Your task to perform on an android device: Search for lenovo thinkpad on costco.com, select the first entry, and add it to the cart. Image 0: 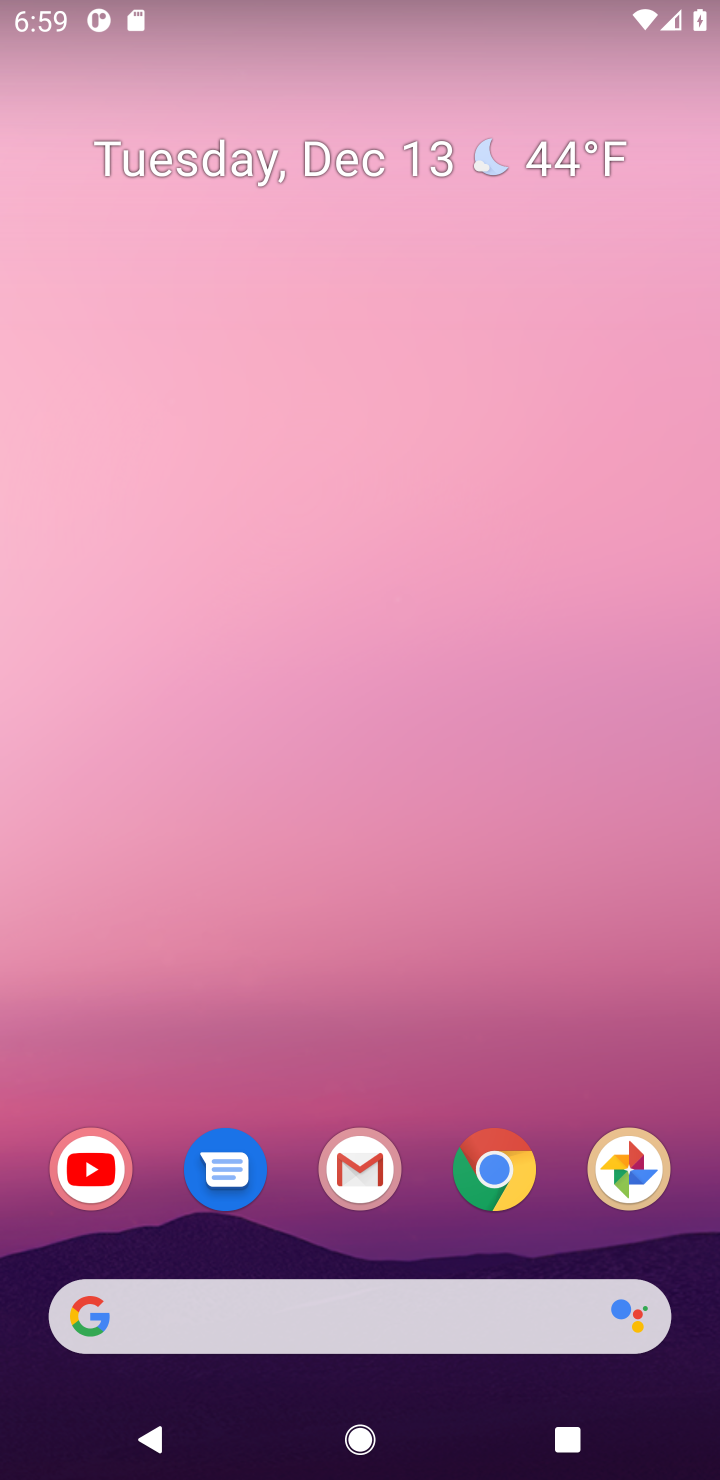
Step 0: click (484, 1196)
Your task to perform on an android device: Search for lenovo thinkpad on costco.com, select the first entry, and add it to the cart. Image 1: 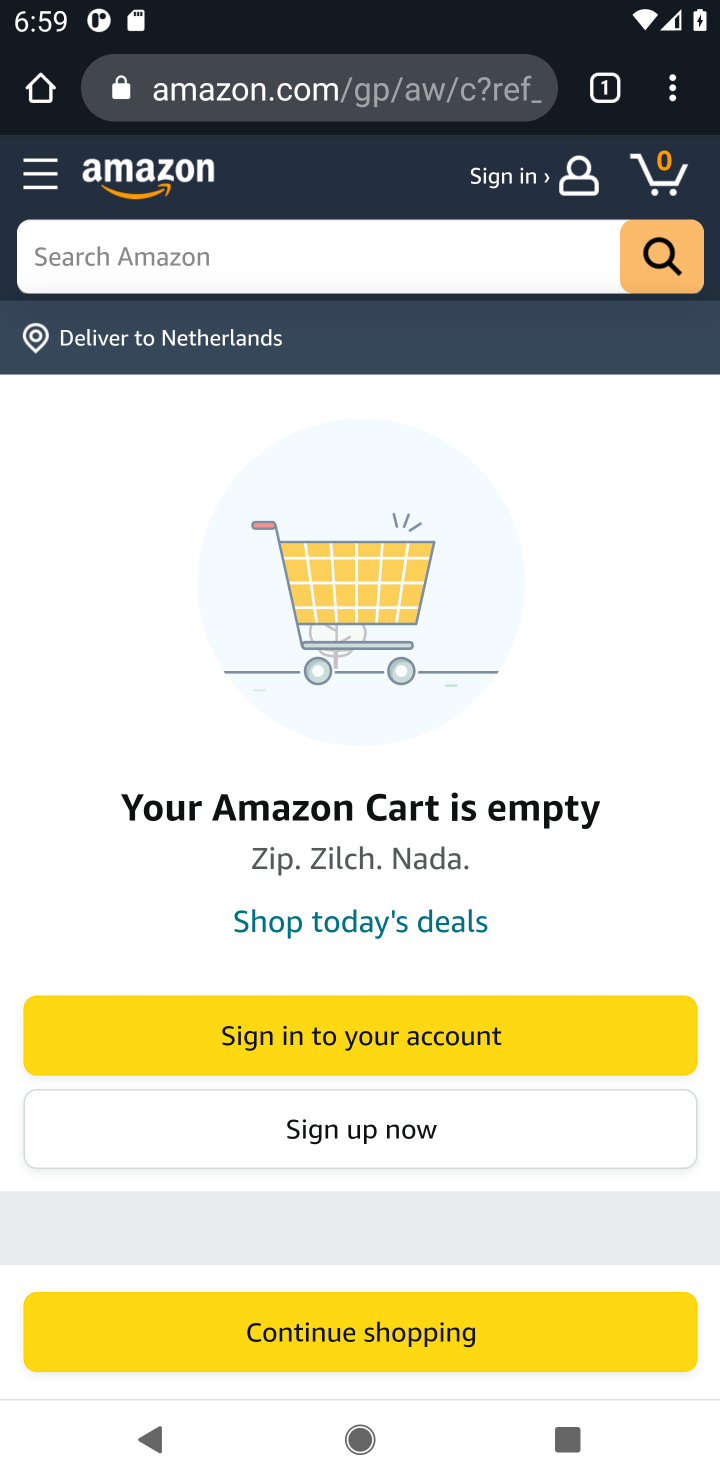
Step 1: click (346, 57)
Your task to perform on an android device: Search for lenovo thinkpad on costco.com, select the first entry, and add it to the cart. Image 2: 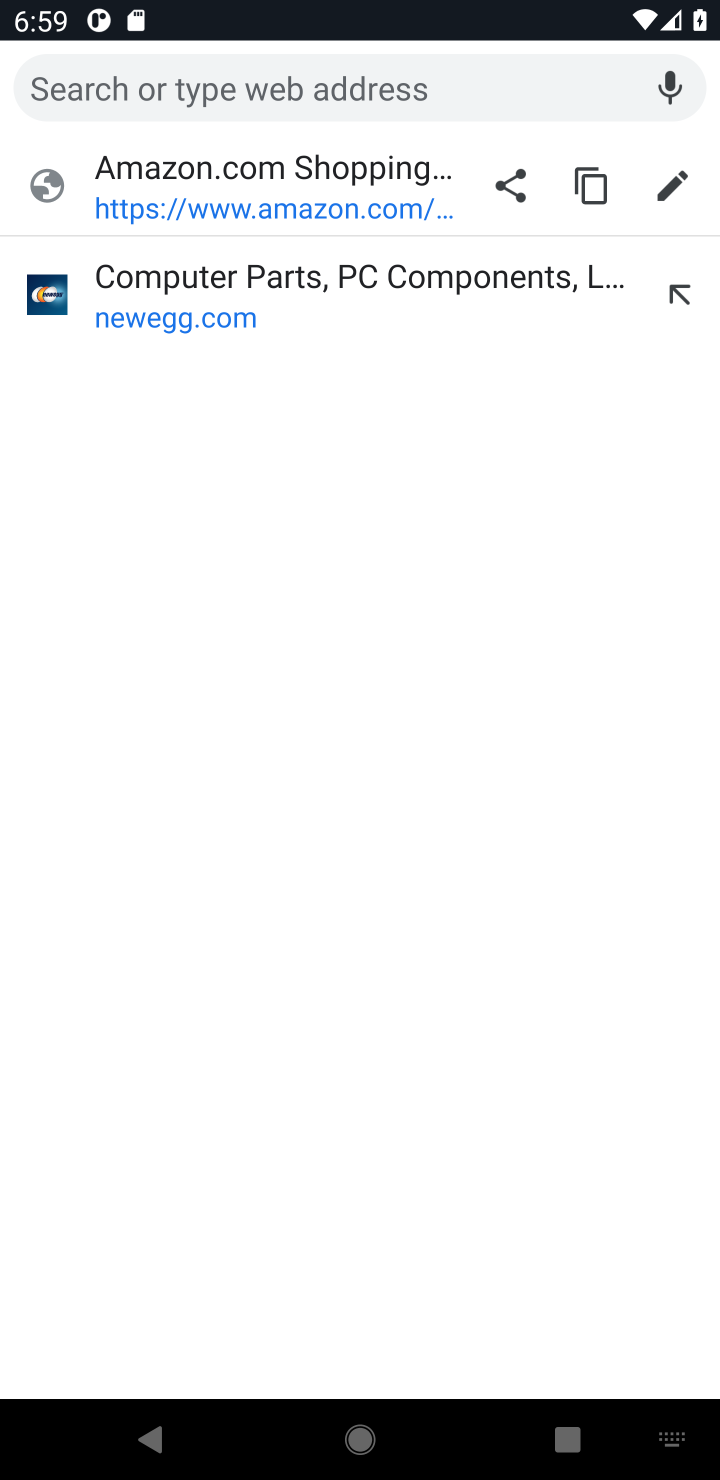
Step 2: type "costco"
Your task to perform on an android device: Search for lenovo thinkpad on costco.com, select the first entry, and add it to the cart. Image 3: 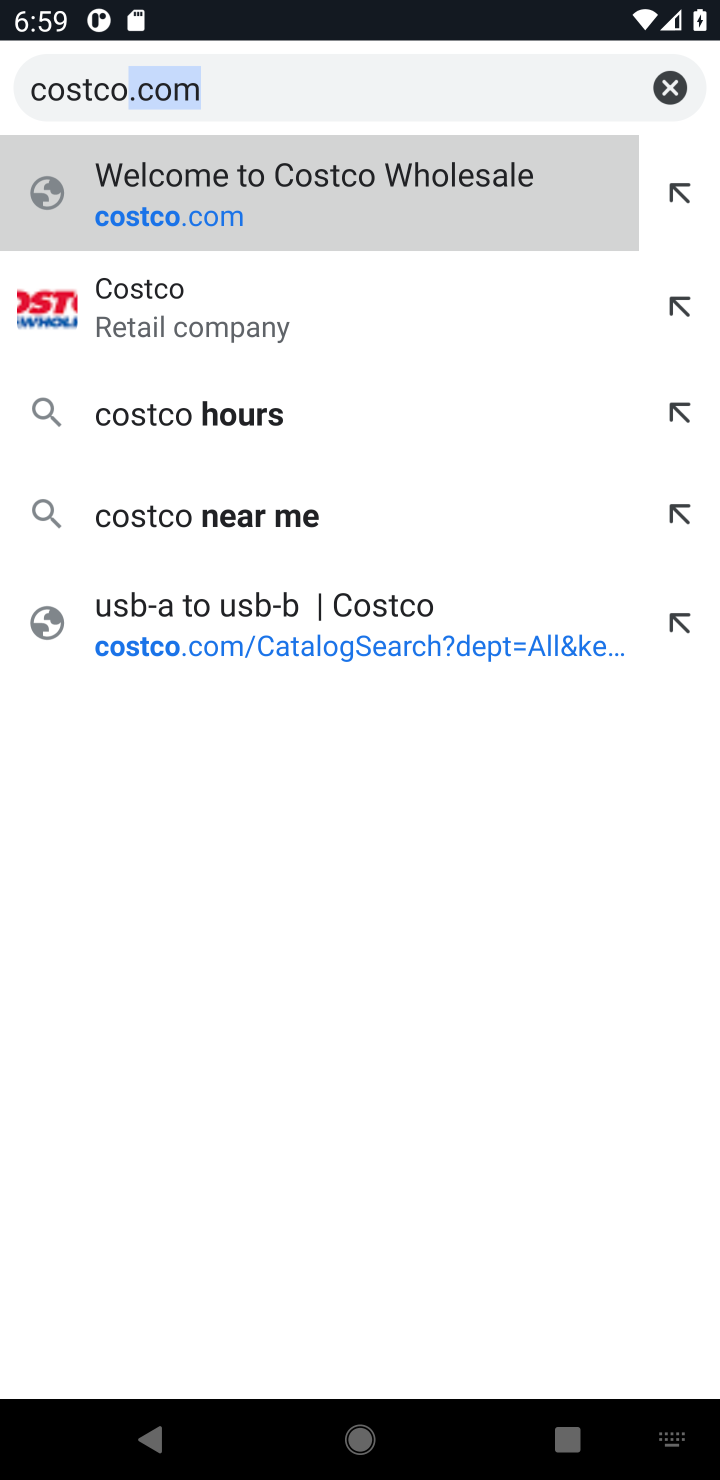
Step 3: click (270, 354)
Your task to perform on an android device: Search for lenovo thinkpad on costco.com, select the first entry, and add it to the cart. Image 4: 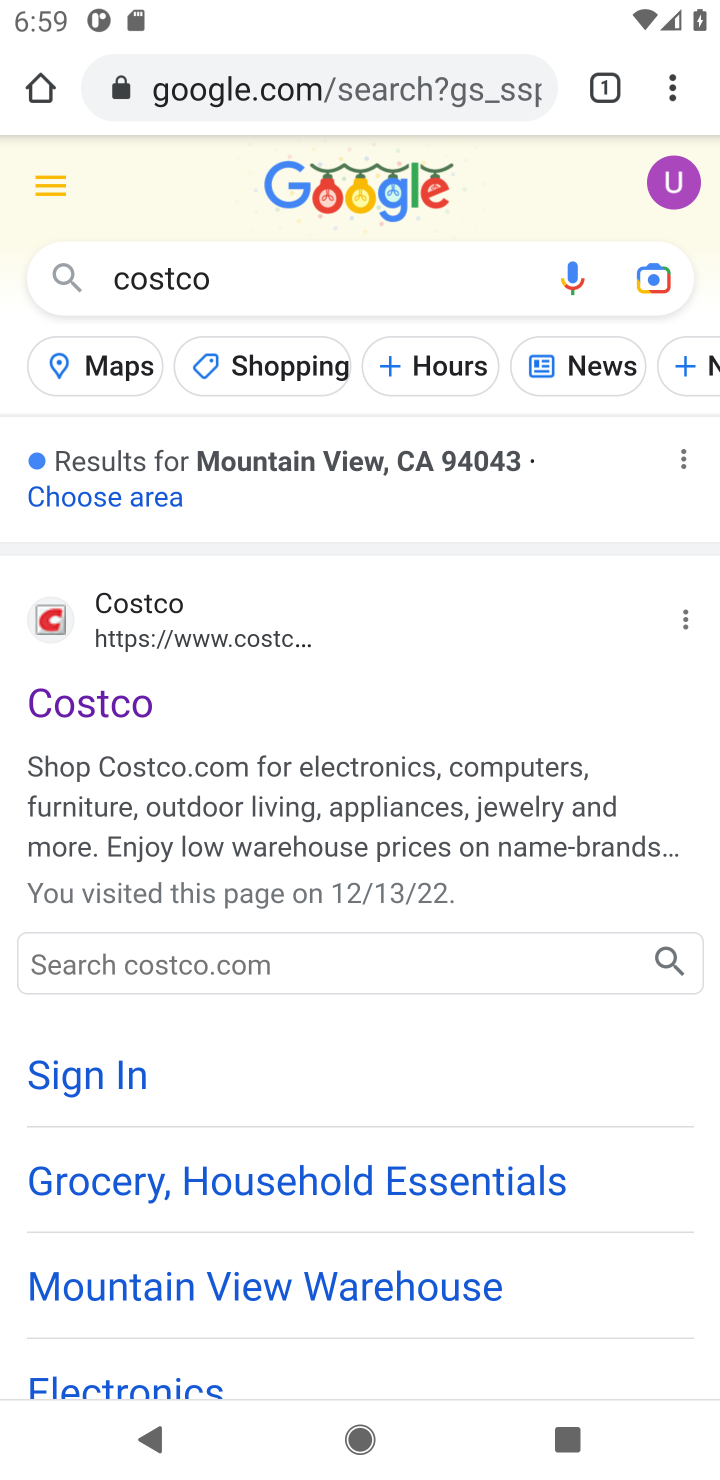
Step 4: click (49, 722)
Your task to perform on an android device: Search for lenovo thinkpad on costco.com, select the first entry, and add it to the cart. Image 5: 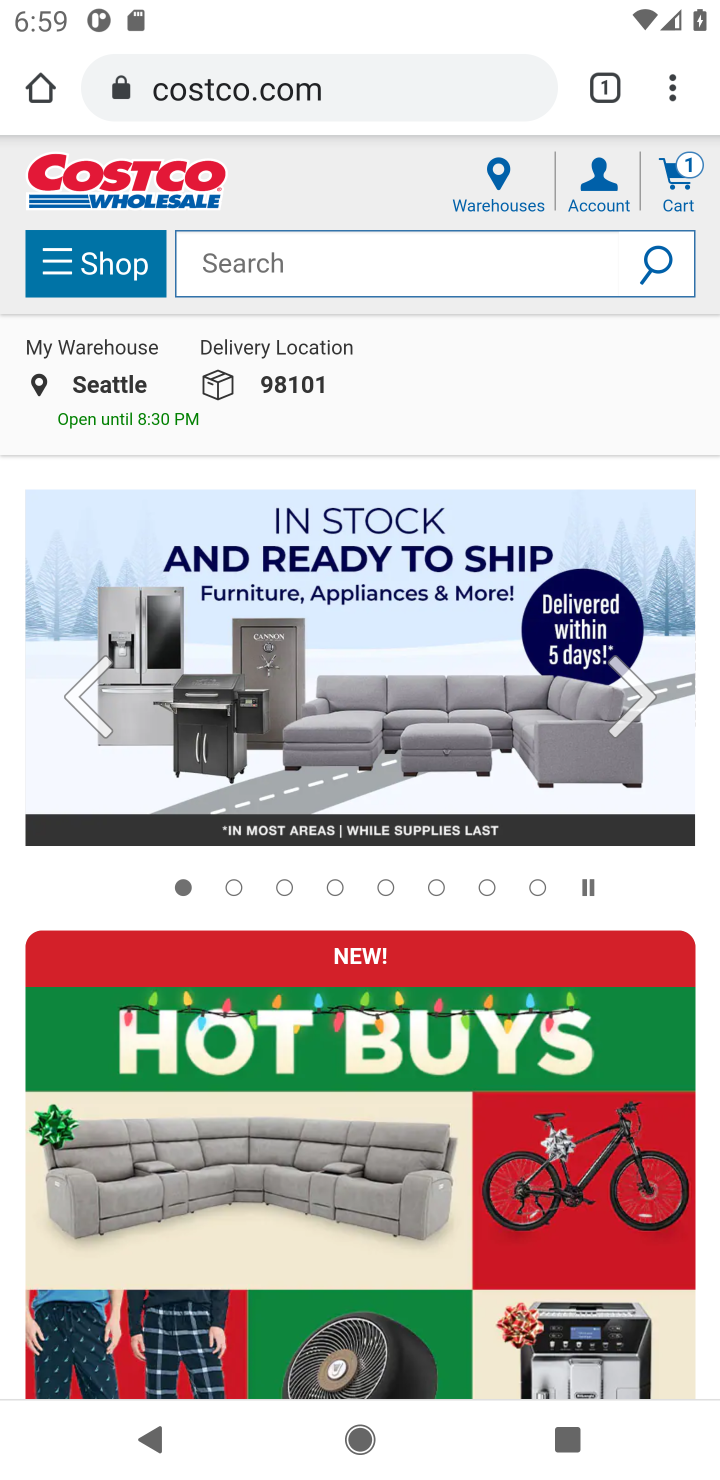
Step 5: click (262, 255)
Your task to perform on an android device: Search for lenovo thinkpad on costco.com, select the first entry, and add it to the cart. Image 6: 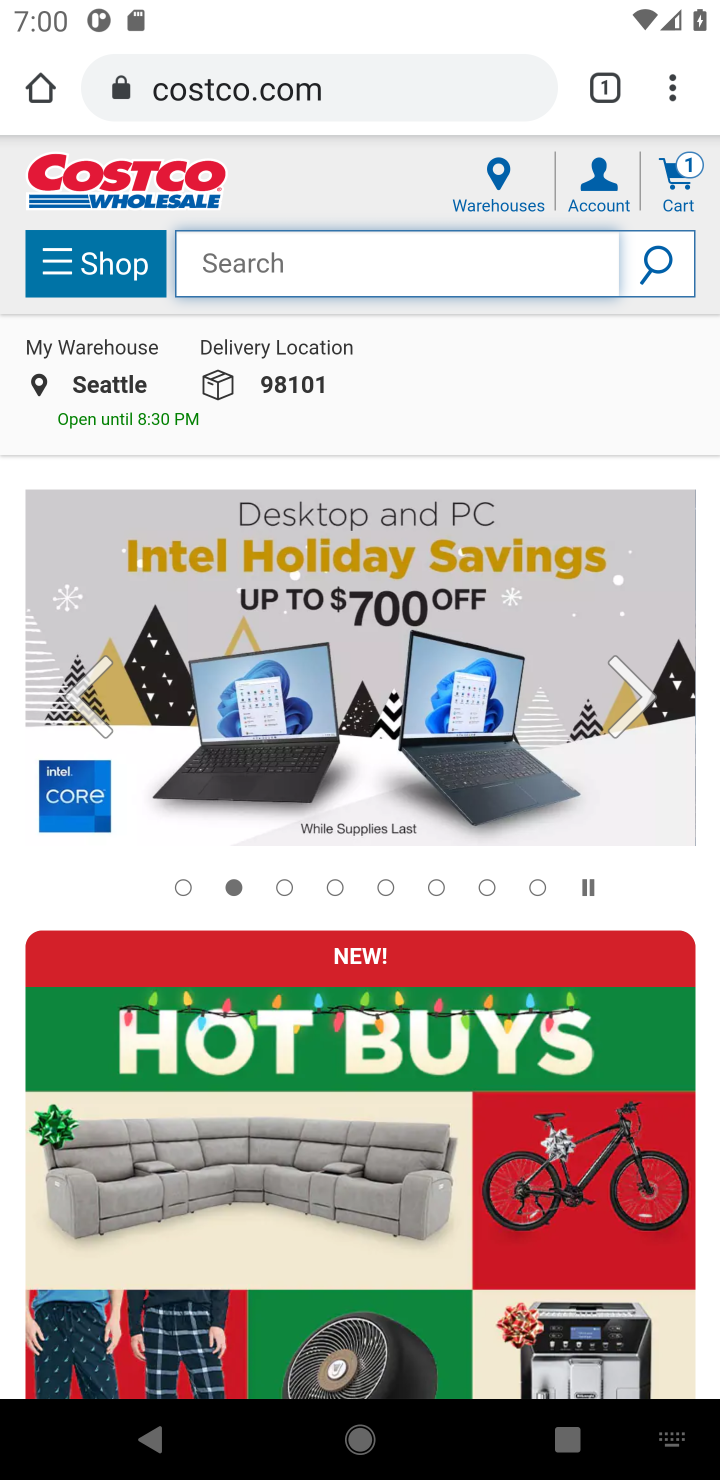
Step 6: type "lenovo thinkpad"
Your task to perform on an android device: Search for lenovo thinkpad on costco.com, select the first entry, and add it to the cart. Image 7: 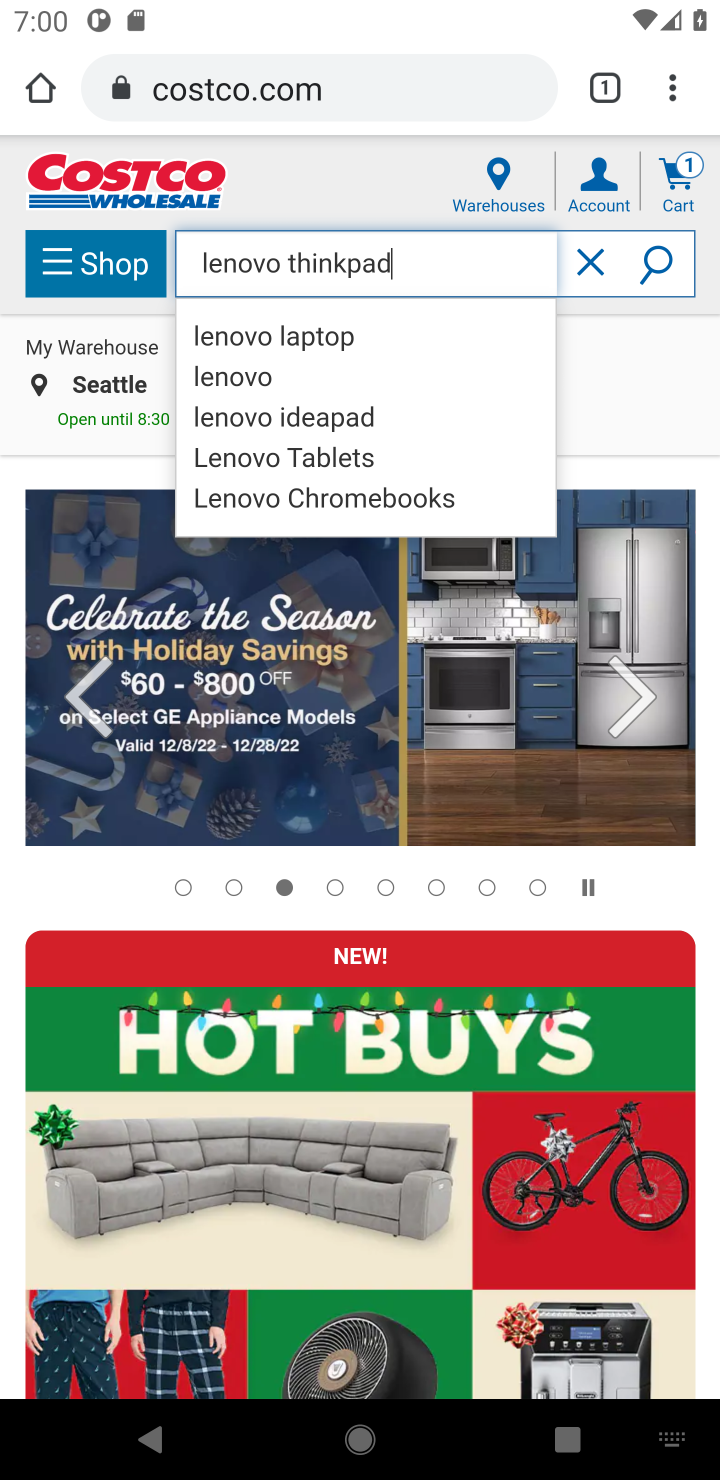
Step 7: click (339, 326)
Your task to perform on an android device: Search for lenovo thinkpad on costco.com, select the first entry, and add it to the cart. Image 8: 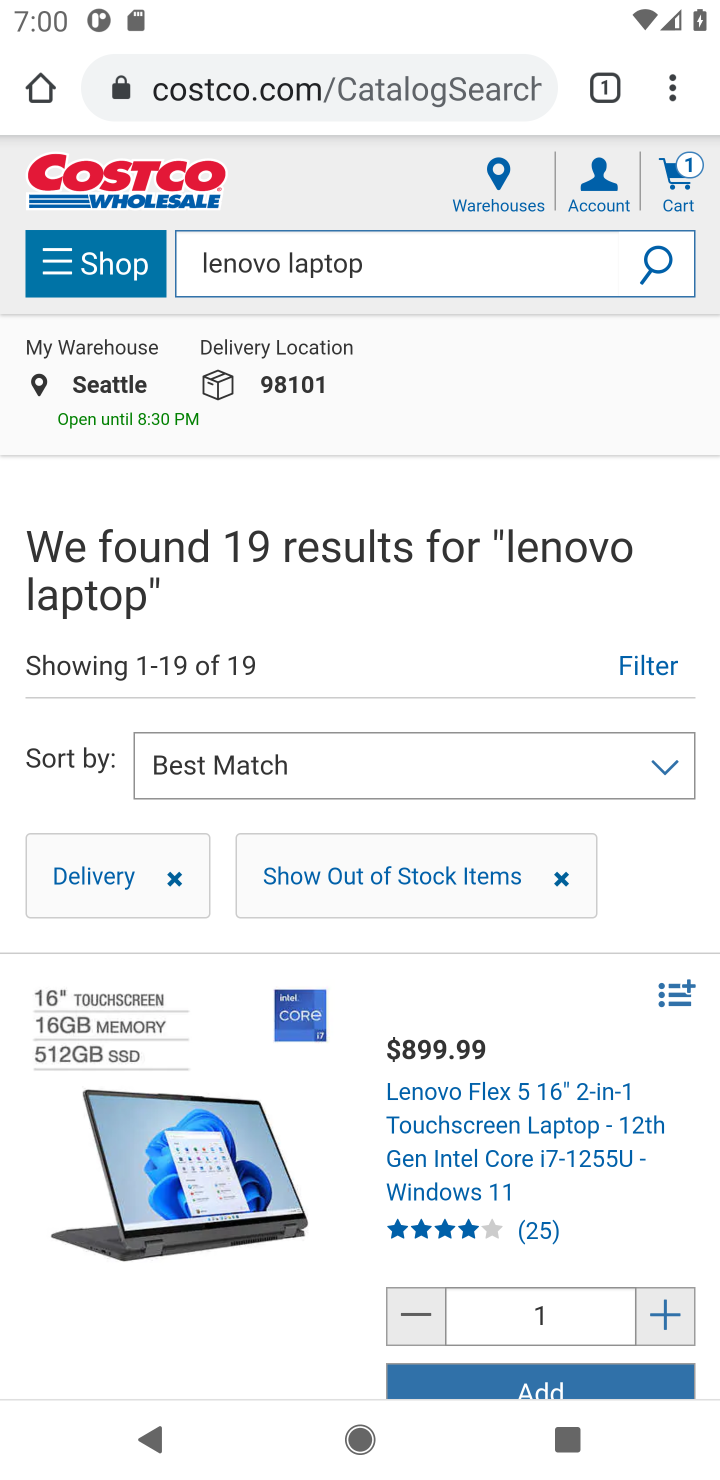
Step 8: click (598, 1397)
Your task to perform on an android device: Search for lenovo thinkpad on costco.com, select the first entry, and add it to the cart. Image 9: 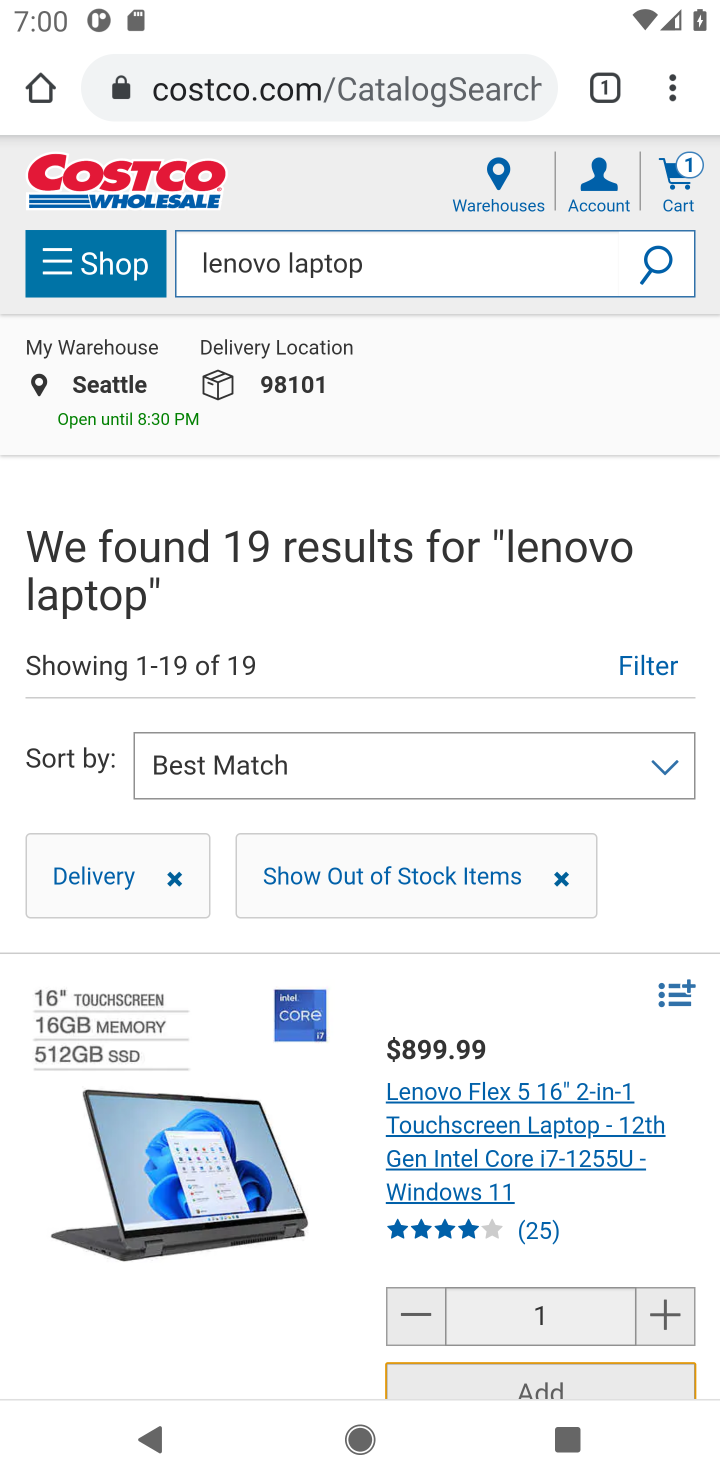
Step 9: task complete